Your task to perform on an android device: check the backup settings in the google photos Image 0: 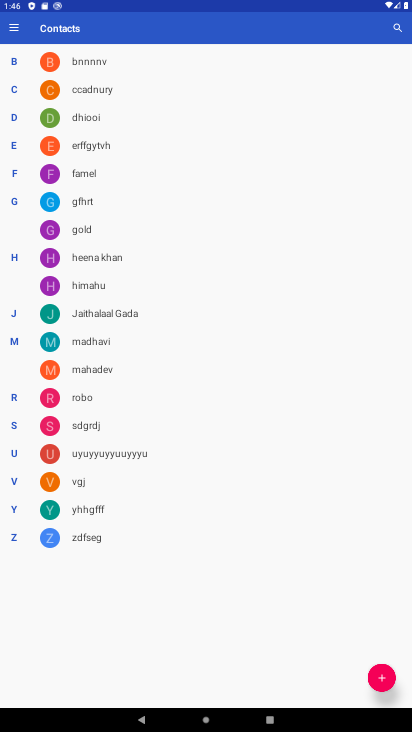
Step 0: press home button
Your task to perform on an android device: check the backup settings in the google photos Image 1: 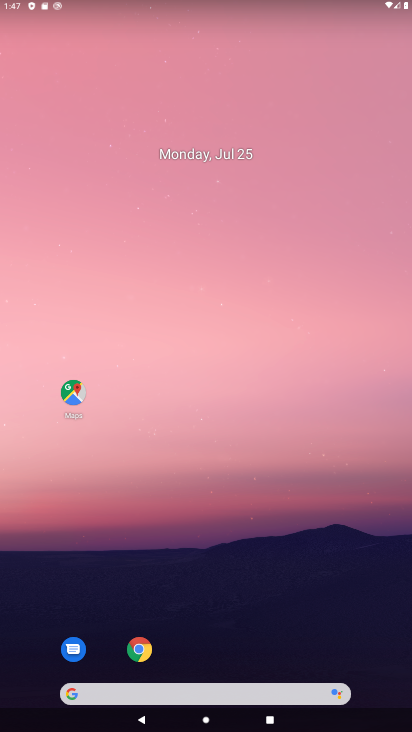
Step 1: drag from (166, 688) to (295, 146)
Your task to perform on an android device: check the backup settings in the google photos Image 2: 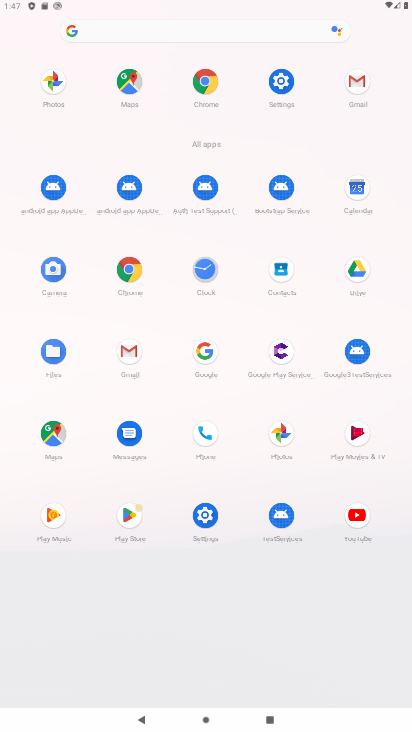
Step 2: click (65, 83)
Your task to perform on an android device: check the backup settings in the google photos Image 3: 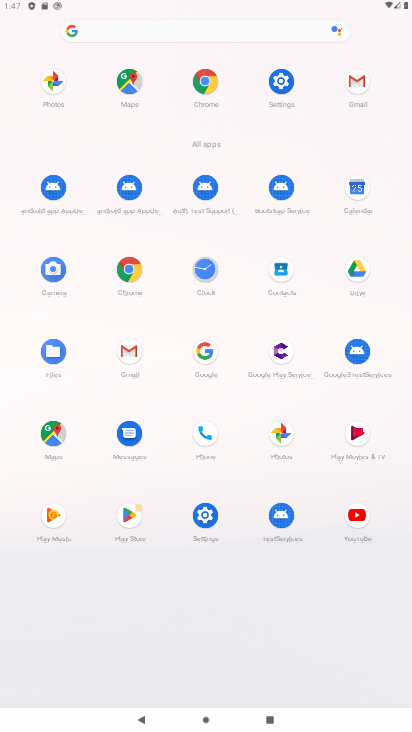
Step 3: click (65, 83)
Your task to perform on an android device: check the backup settings in the google photos Image 4: 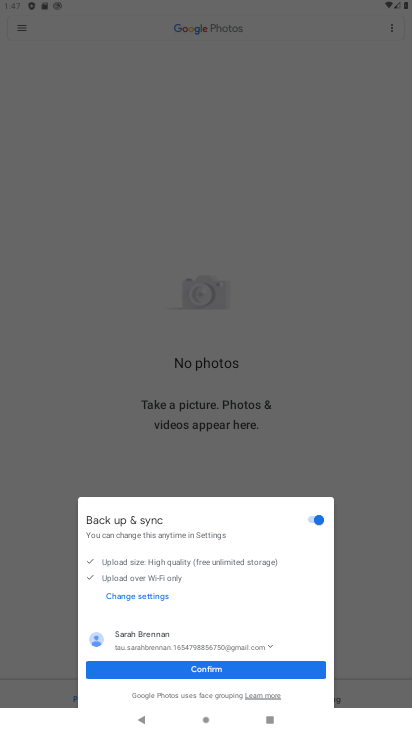
Step 4: click (229, 670)
Your task to perform on an android device: check the backup settings in the google photos Image 5: 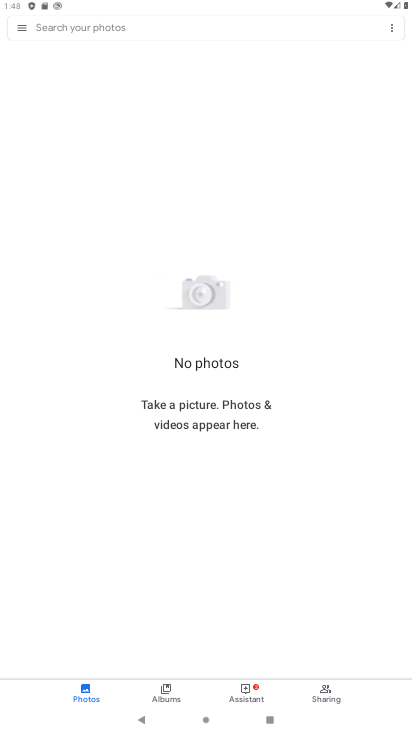
Step 5: click (26, 28)
Your task to perform on an android device: check the backup settings in the google photos Image 6: 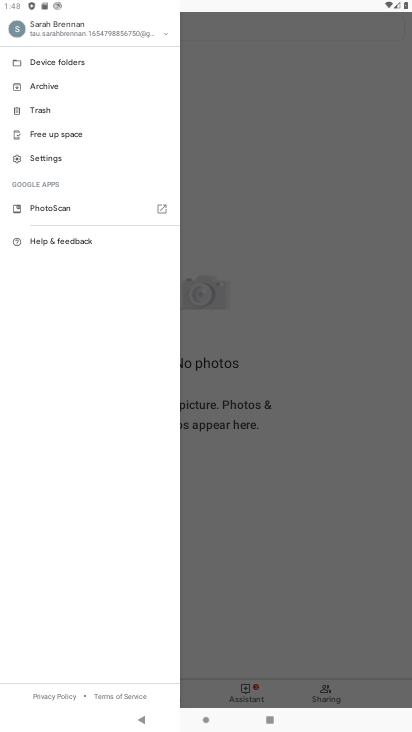
Step 6: click (29, 155)
Your task to perform on an android device: check the backup settings in the google photos Image 7: 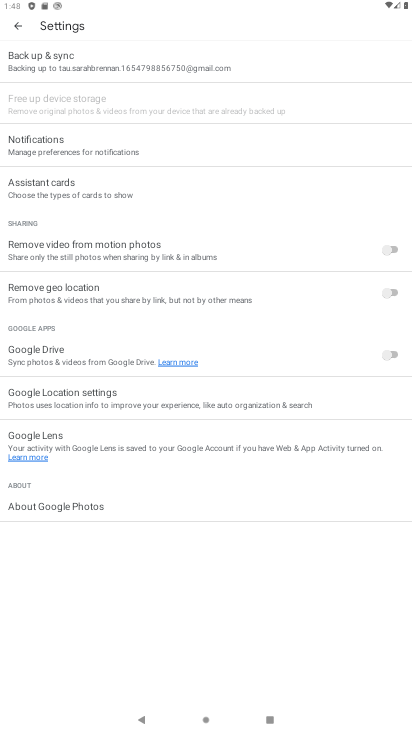
Step 7: click (187, 60)
Your task to perform on an android device: check the backup settings in the google photos Image 8: 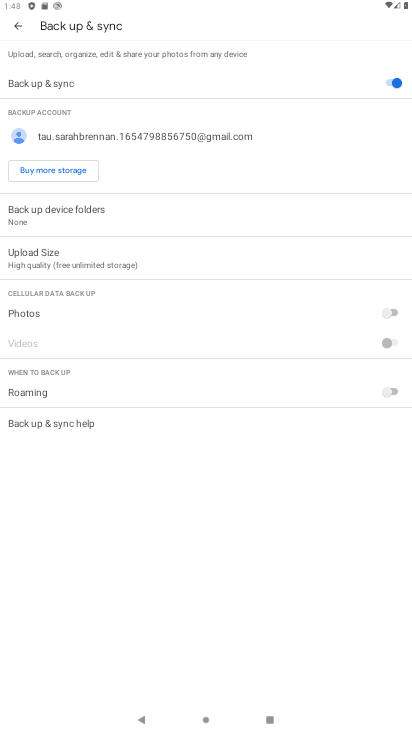
Step 8: task complete